Your task to perform on an android device: toggle improve location accuracy Image 0: 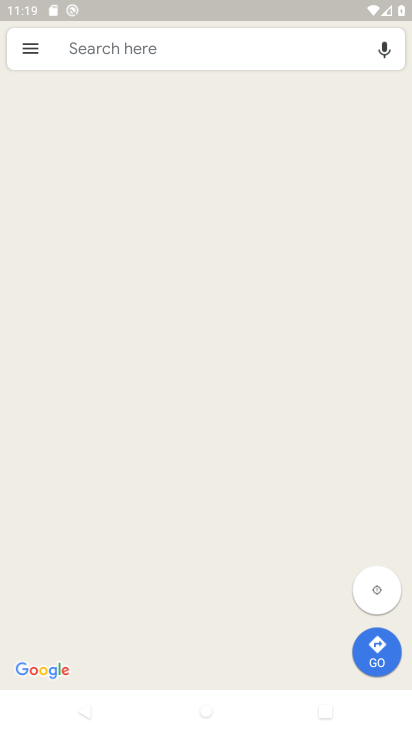
Step 0: press home button
Your task to perform on an android device: toggle improve location accuracy Image 1: 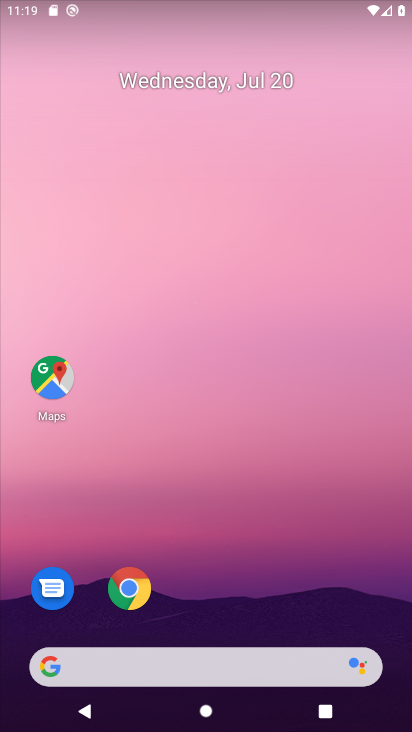
Step 1: drag from (226, 632) to (250, 16)
Your task to perform on an android device: toggle improve location accuracy Image 2: 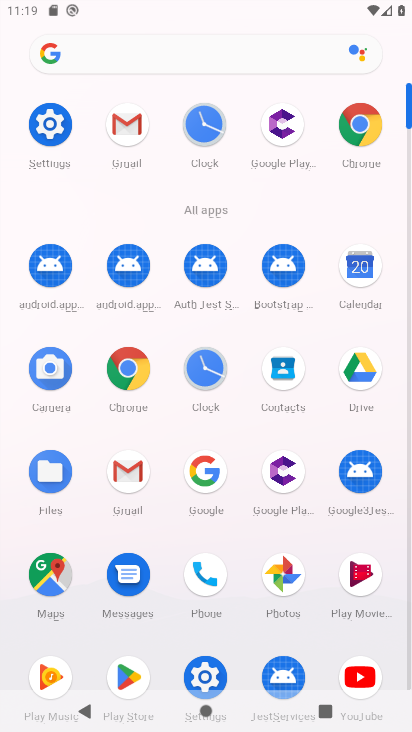
Step 2: click (45, 116)
Your task to perform on an android device: toggle improve location accuracy Image 3: 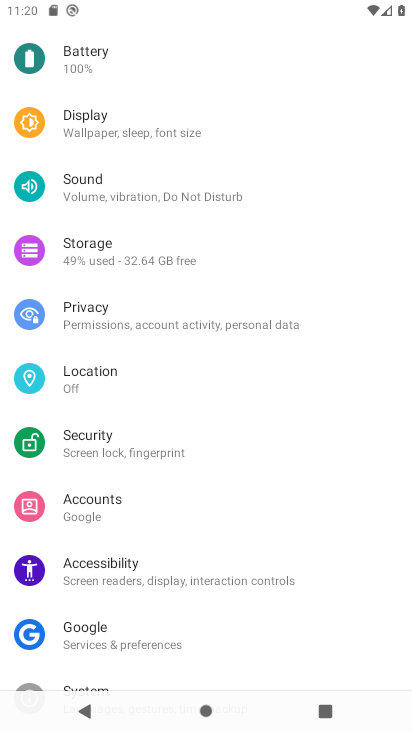
Step 3: click (142, 375)
Your task to perform on an android device: toggle improve location accuracy Image 4: 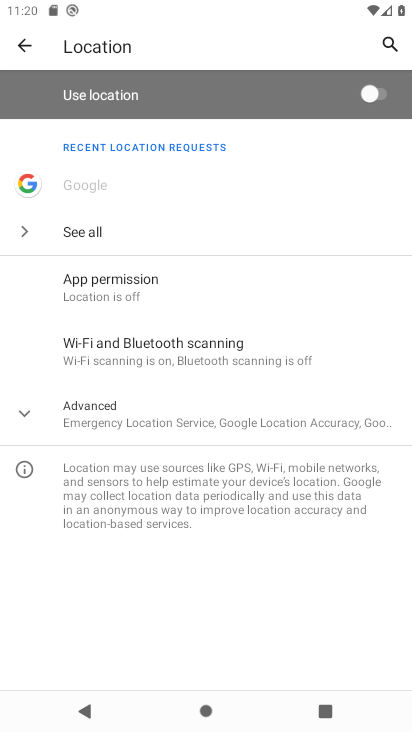
Step 4: click (32, 410)
Your task to perform on an android device: toggle improve location accuracy Image 5: 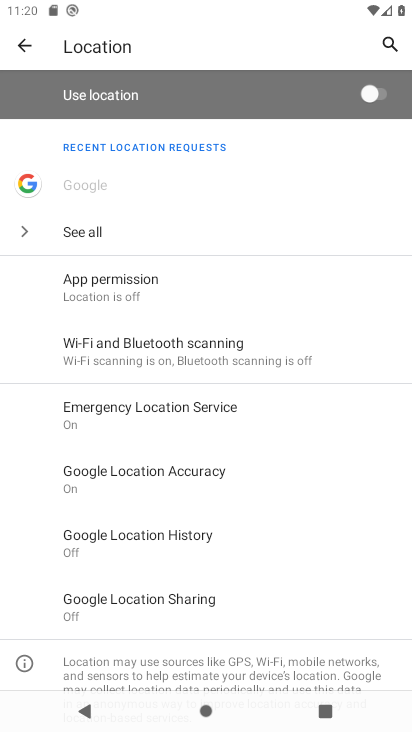
Step 5: click (115, 480)
Your task to perform on an android device: toggle improve location accuracy Image 6: 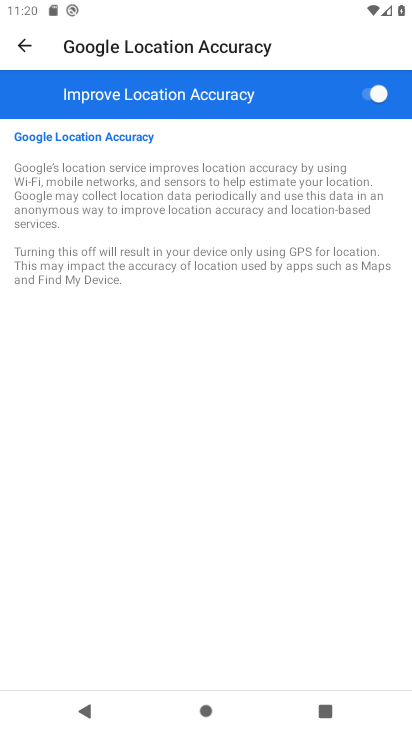
Step 6: click (371, 91)
Your task to perform on an android device: toggle improve location accuracy Image 7: 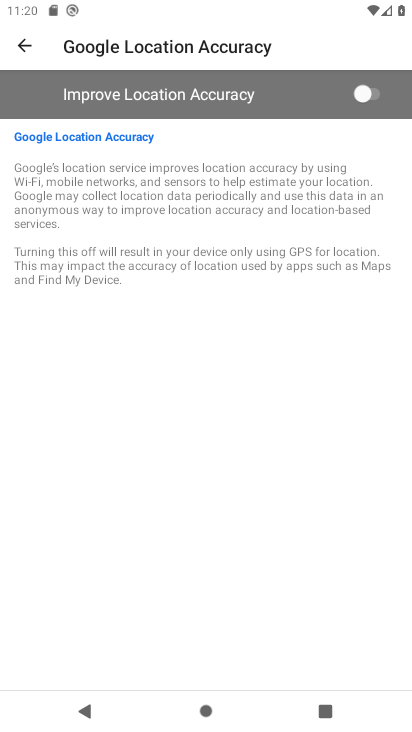
Step 7: task complete